Your task to perform on an android device: Toggle the flashlight Image 0: 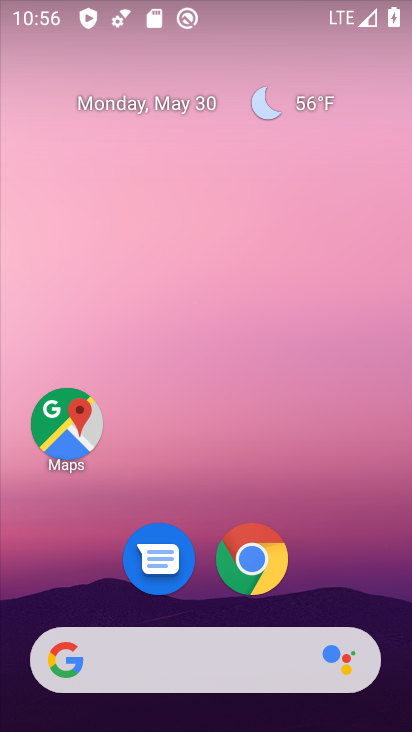
Step 0: drag from (247, 12) to (280, 379)
Your task to perform on an android device: Toggle the flashlight Image 1: 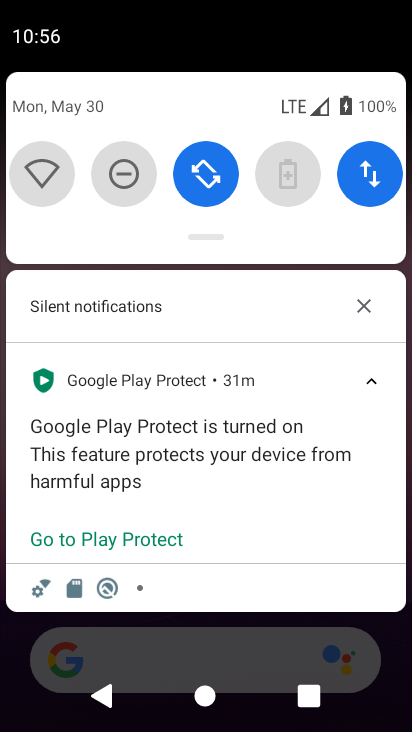
Step 1: drag from (247, 204) to (272, 431)
Your task to perform on an android device: Toggle the flashlight Image 2: 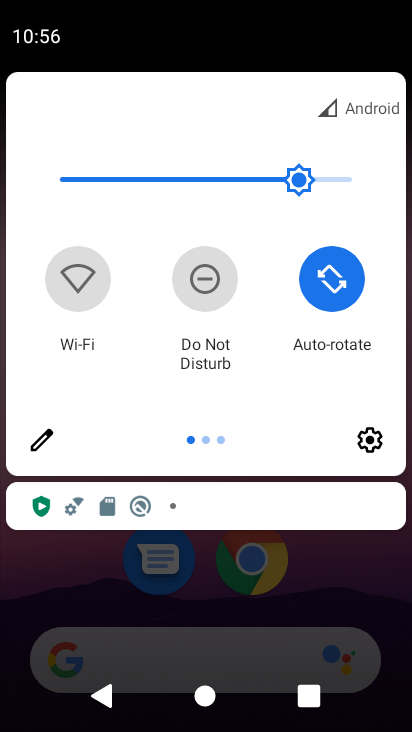
Step 2: click (44, 438)
Your task to perform on an android device: Toggle the flashlight Image 3: 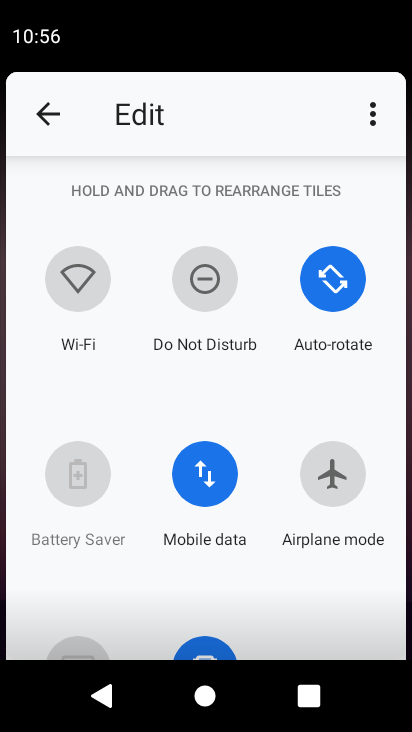
Step 3: task complete